Your task to perform on an android device: turn off data saver in the chrome app Image 0: 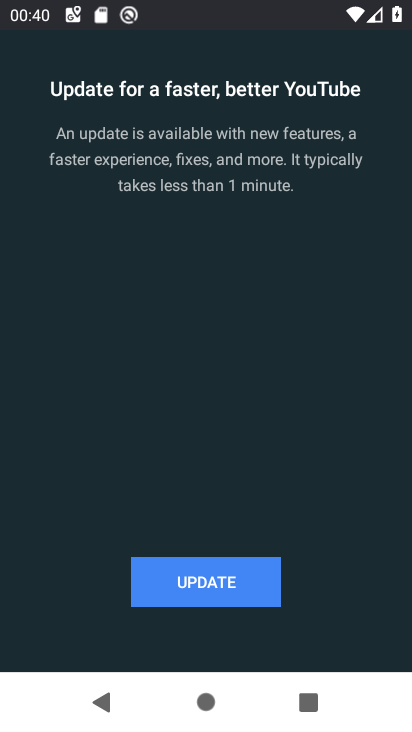
Step 0: press home button
Your task to perform on an android device: turn off data saver in the chrome app Image 1: 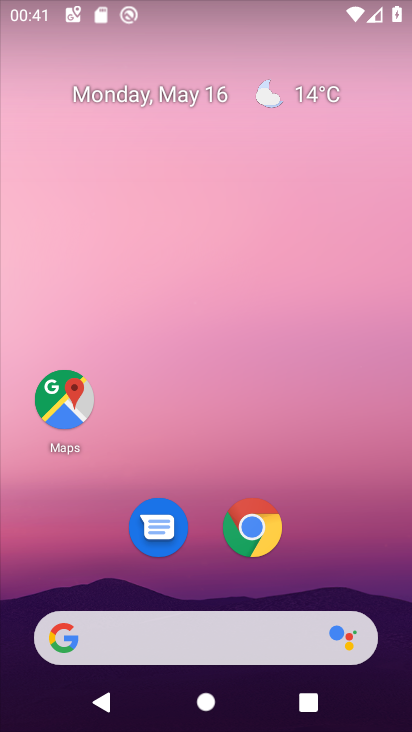
Step 1: click (259, 516)
Your task to perform on an android device: turn off data saver in the chrome app Image 2: 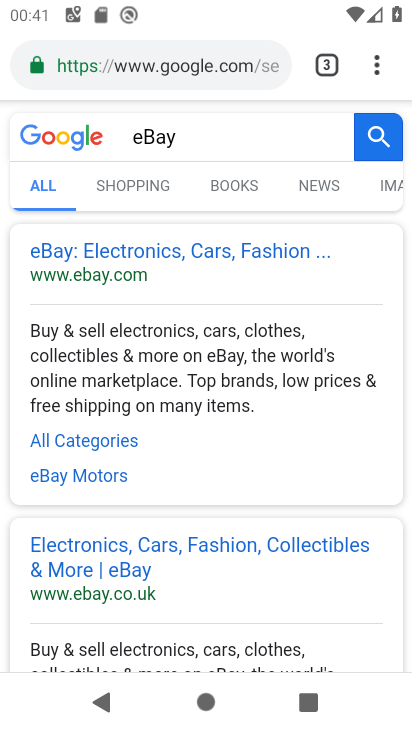
Step 2: click (376, 66)
Your task to perform on an android device: turn off data saver in the chrome app Image 3: 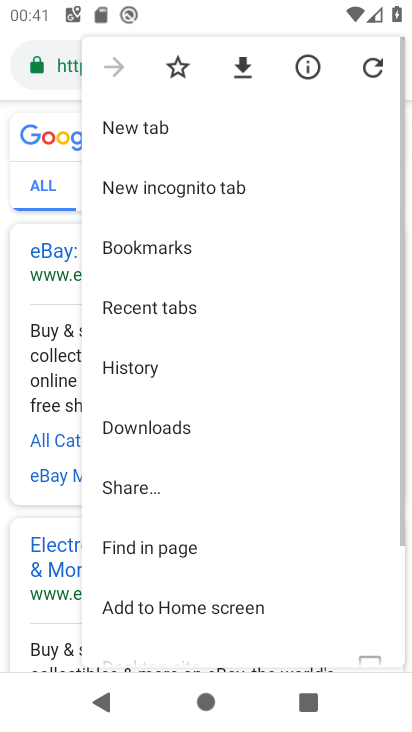
Step 3: drag from (166, 568) to (227, 174)
Your task to perform on an android device: turn off data saver in the chrome app Image 4: 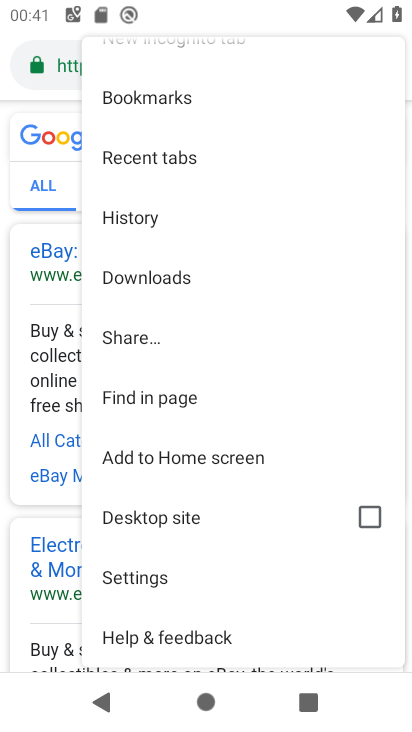
Step 4: click (157, 577)
Your task to perform on an android device: turn off data saver in the chrome app Image 5: 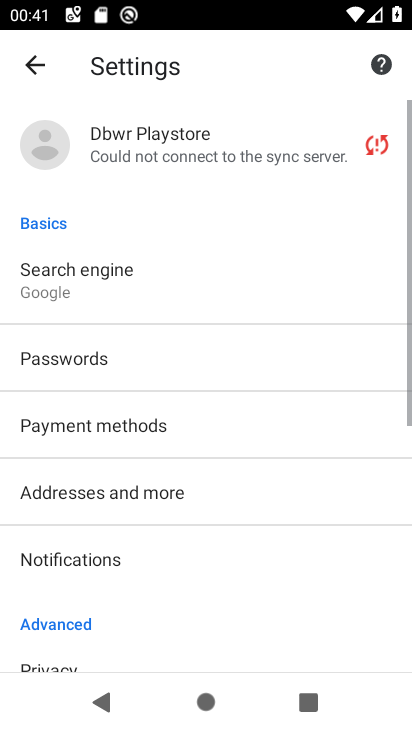
Step 5: drag from (130, 566) to (250, 8)
Your task to perform on an android device: turn off data saver in the chrome app Image 6: 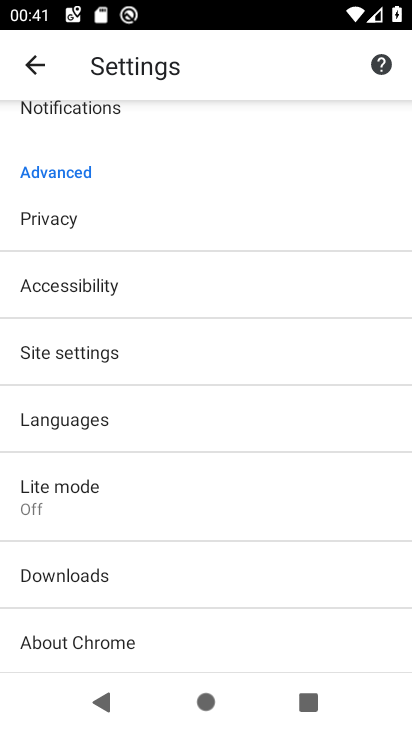
Step 6: click (92, 505)
Your task to perform on an android device: turn off data saver in the chrome app Image 7: 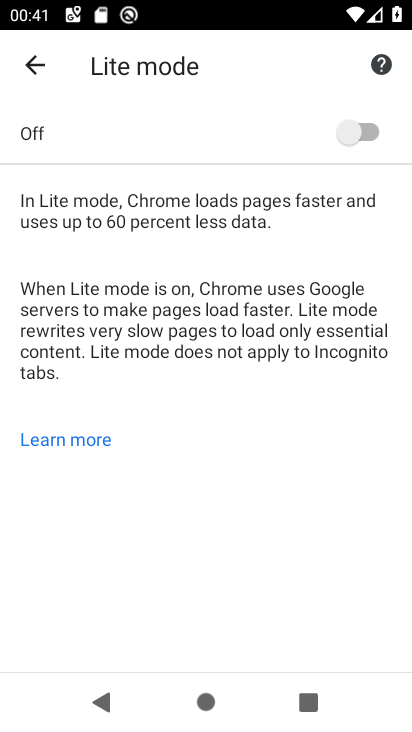
Step 7: task complete